Your task to perform on an android device: Open my contact list Image 0: 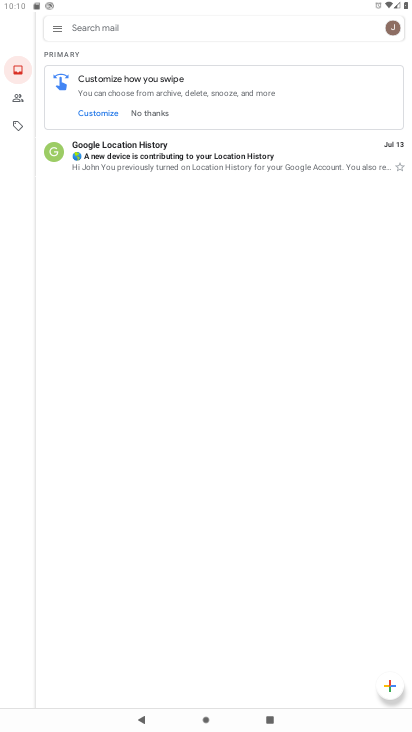
Step 0: press home button
Your task to perform on an android device: Open my contact list Image 1: 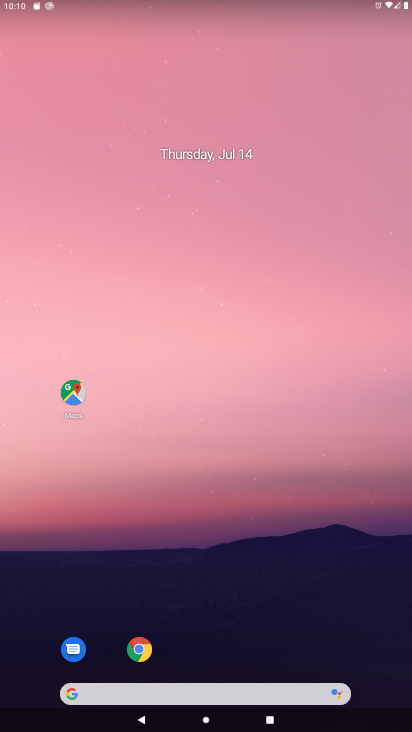
Step 1: drag from (226, 717) to (289, 46)
Your task to perform on an android device: Open my contact list Image 2: 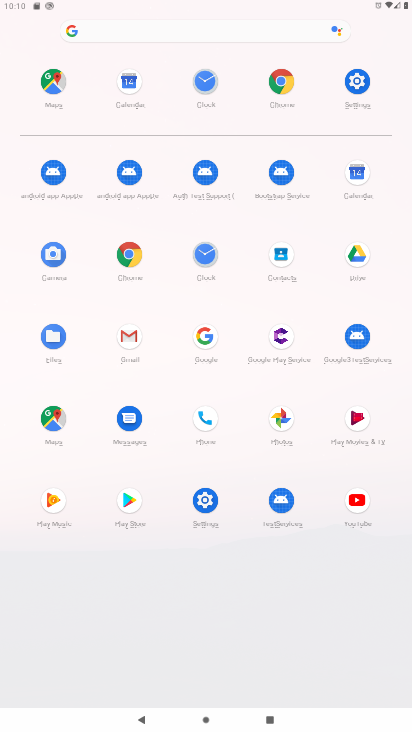
Step 2: click (282, 264)
Your task to perform on an android device: Open my contact list Image 3: 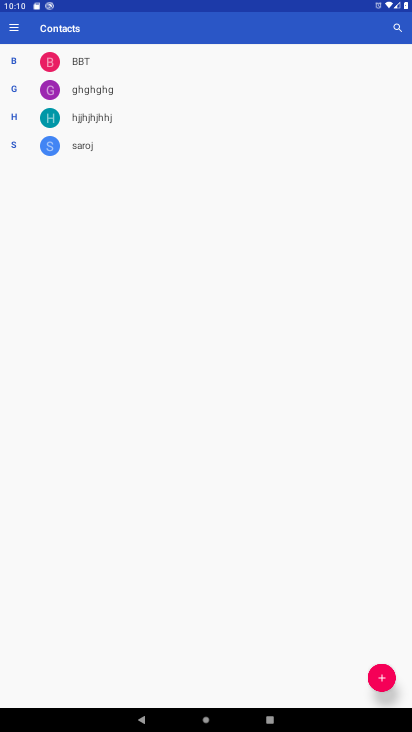
Step 3: task complete